Your task to perform on an android device: delete browsing data in the chrome app Image 0: 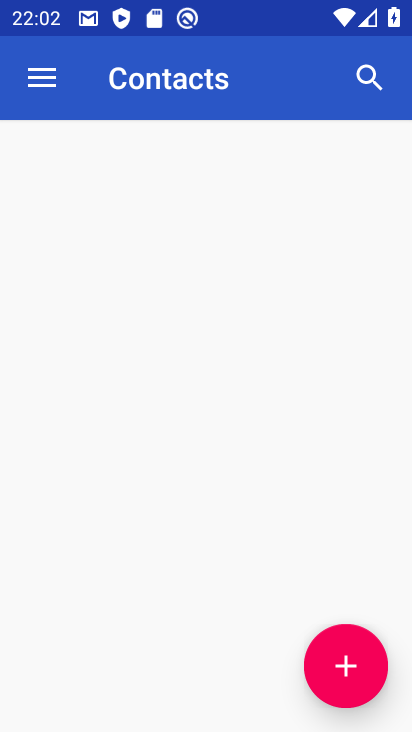
Step 0: drag from (199, 556) to (226, 232)
Your task to perform on an android device: delete browsing data in the chrome app Image 1: 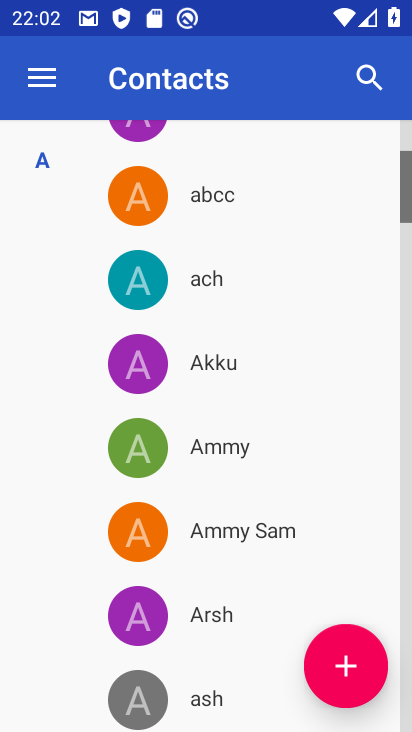
Step 1: press home button
Your task to perform on an android device: delete browsing data in the chrome app Image 2: 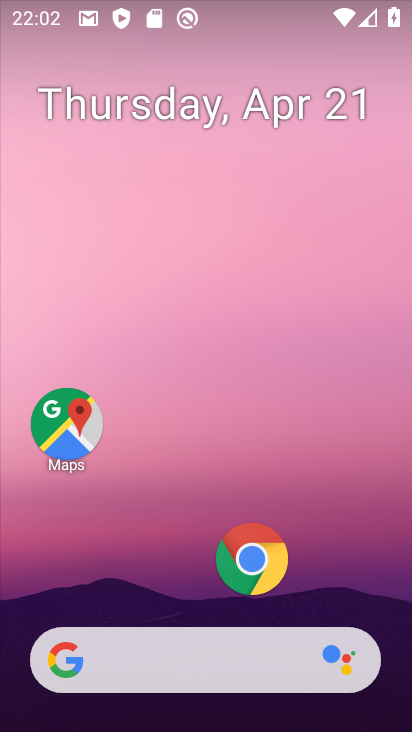
Step 2: click (246, 548)
Your task to perform on an android device: delete browsing data in the chrome app Image 3: 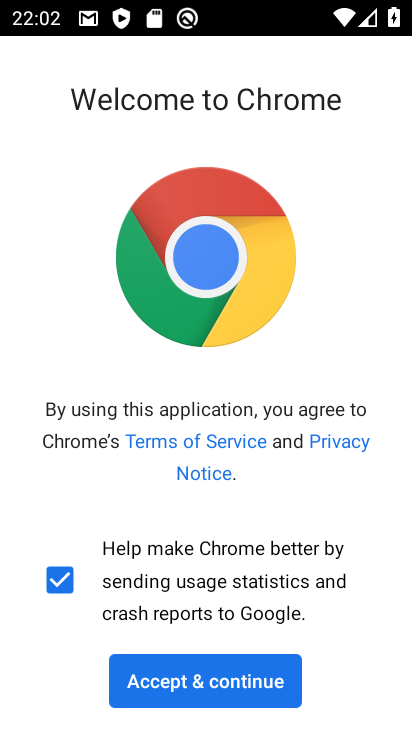
Step 3: click (230, 697)
Your task to perform on an android device: delete browsing data in the chrome app Image 4: 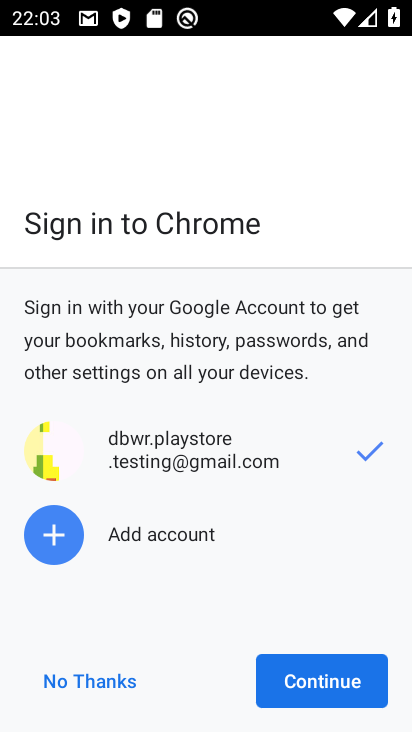
Step 4: click (326, 689)
Your task to perform on an android device: delete browsing data in the chrome app Image 5: 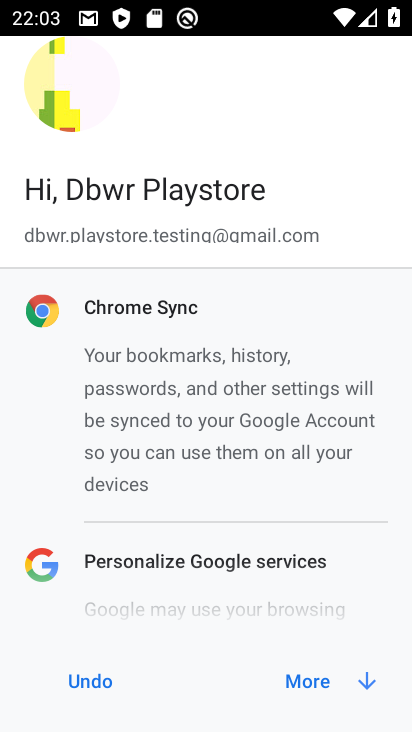
Step 5: click (327, 687)
Your task to perform on an android device: delete browsing data in the chrome app Image 6: 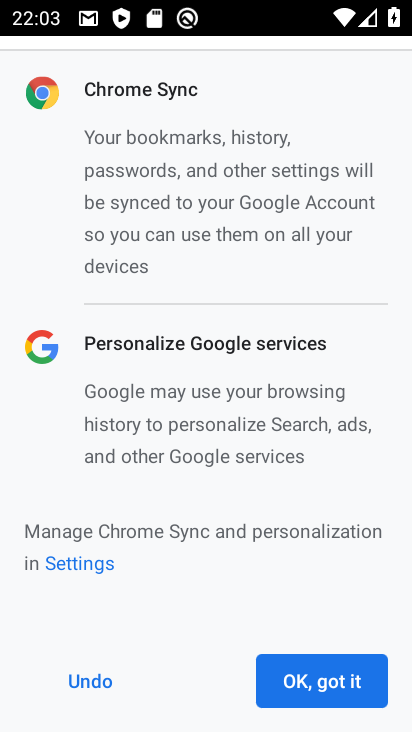
Step 6: click (328, 678)
Your task to perform on an android device: delete browsing data in the chrome app Image 7: 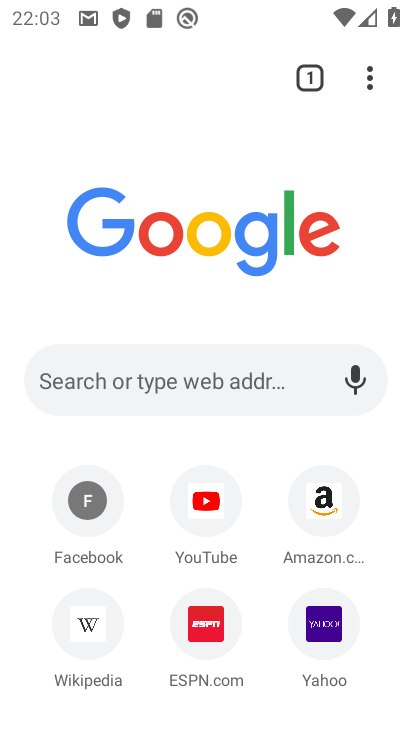
Step 7: click (371, 84)
Your task to perform on an android device: delete browsing data in the chrome app Image 8: 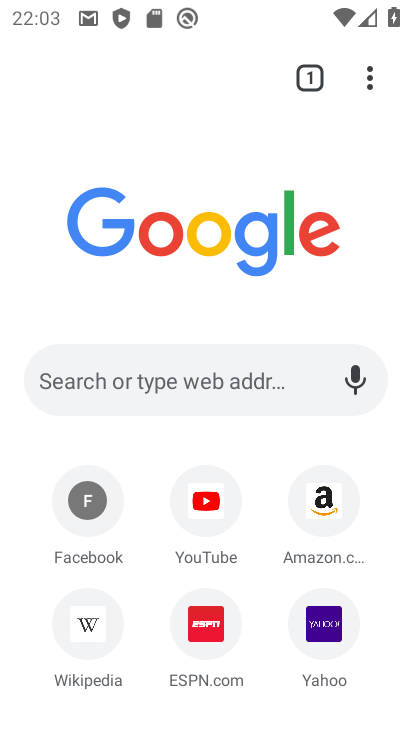
Step 8: click (374, 86)
Your task to perform on an android device: delete browsing data in the chrome app Image 9: 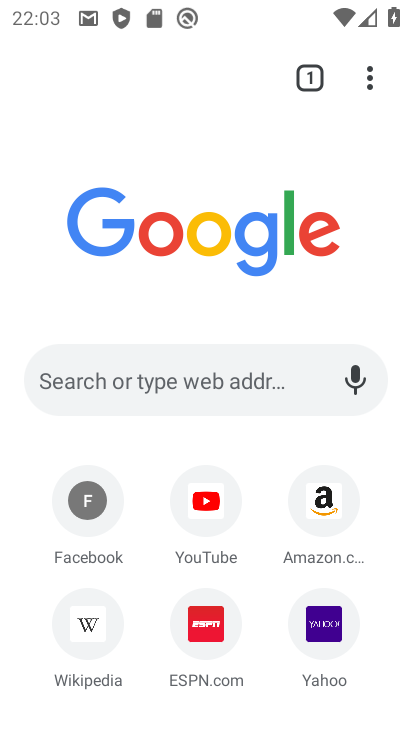
Step 9: click (369, 86)
Your task to perform on an android device: delete browsing data in the chrome app Image 10: 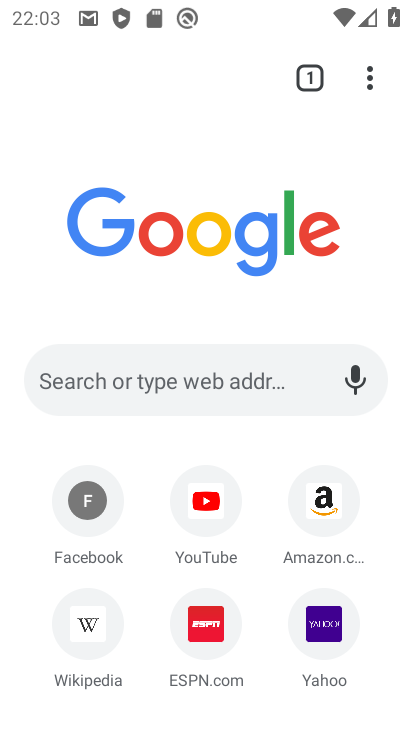
Step 10: click (369, 86)
Your task to perform on an android device: delete browsing data in the chrome app Image 11: 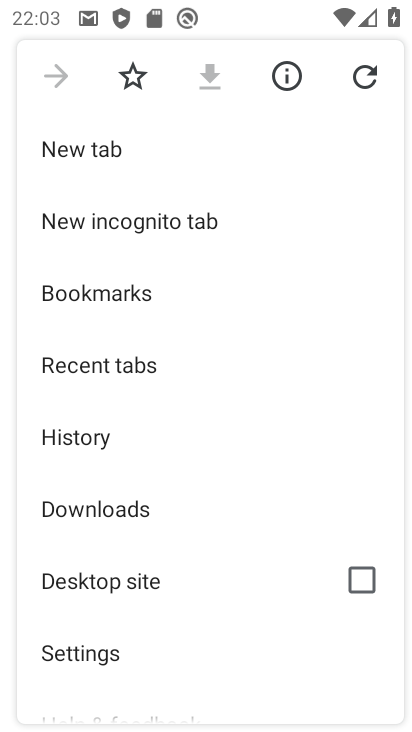
Step 11: click (95, 438)
Your task to perform on an android device: delete browsing data in the chrome app Image 12: 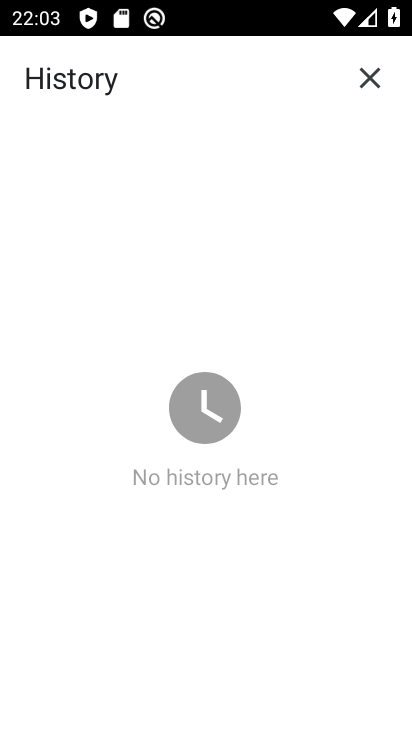
Step 12: task complete